Your task to perform on an android device: Open Youtube and go to the subscriptions tab Image 0: 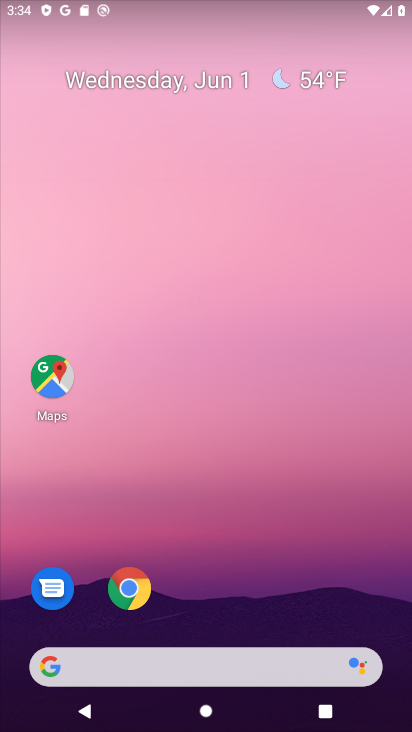
Step 0: drag from (196, 622) to (233, 26)
Your task to perform on an android device: Open Youtube and go to the subscriptions tab Image 1: 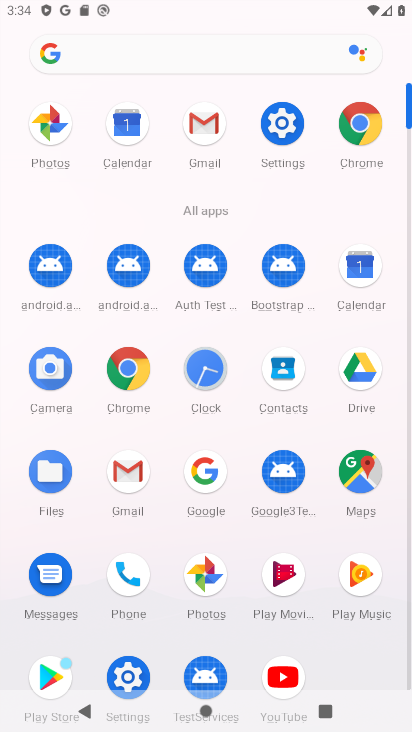
Step 1: click (284, 689)
Your task to perform on an android device: Open Youtube and go to the subscriptions tab Image 2: 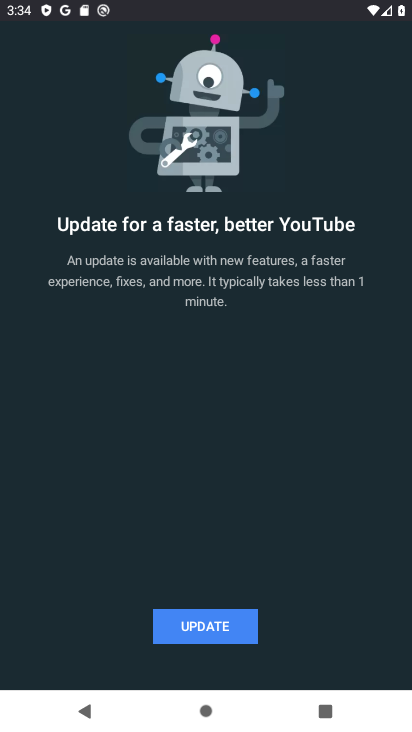
Step 2: click (213, 641)
Your task to perform on an android device: Open Youtube and go to the subscriptions tab Image 3: 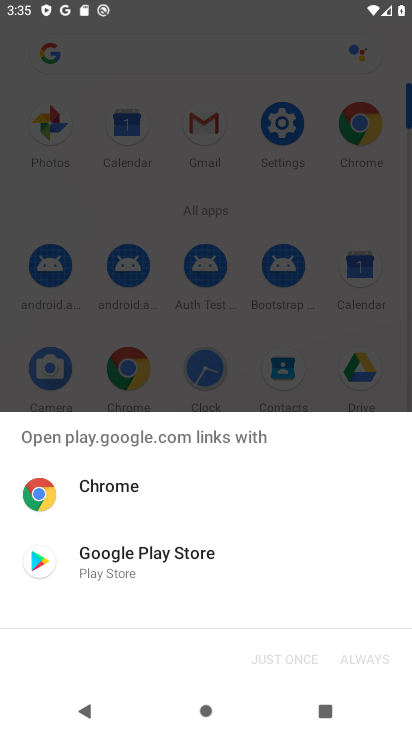
Step 3: click (158, 567)
Your task to perform on an android device: Open Youtube and go to the subscriptions tab Image 4: 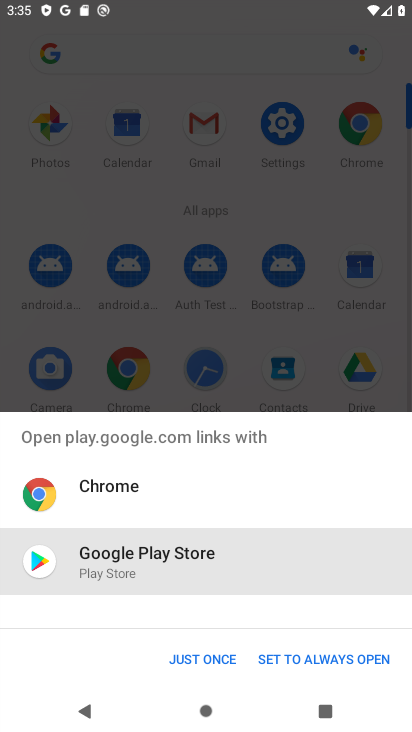
Step 4: click (201, 659)
Your task to perform on an android device: Open Youtube and go to the subscriptions tab Image 5: 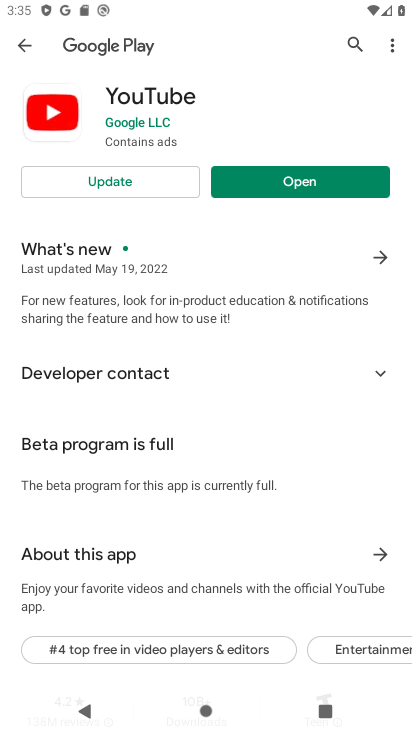
Step 5: click (130, 176)
Your task to perform on an android device: Open Youtube and go to the subscriptions tab Image 6: 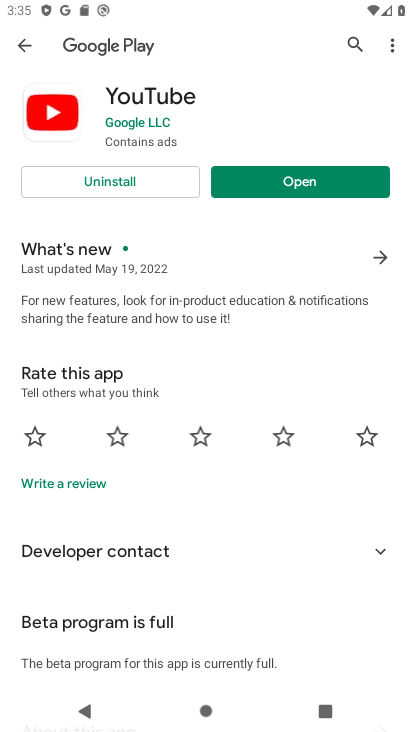
Step 6: click (299, 182)
Your task to perform on an android device: Open Youtube and go to the subscriptions tab Image 7: 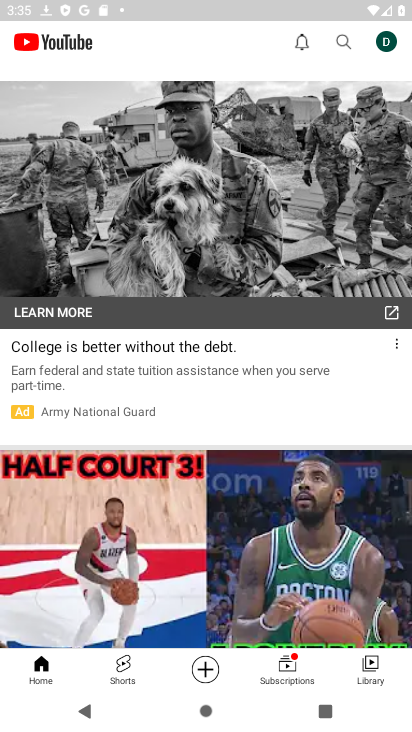
Step 7: click (291, 668)
Your task to perform on an android device: Open Youtube and go to the subscriptions tab Image 8: 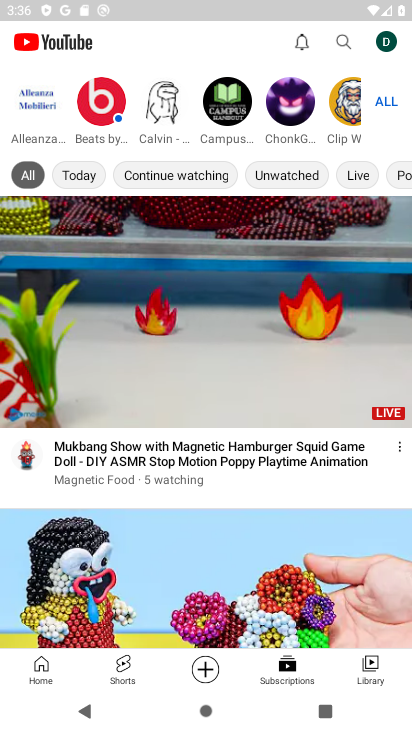
Step 8: task complete